Your task to perform on an android device: toggle javascript in the chrome app Image 0: 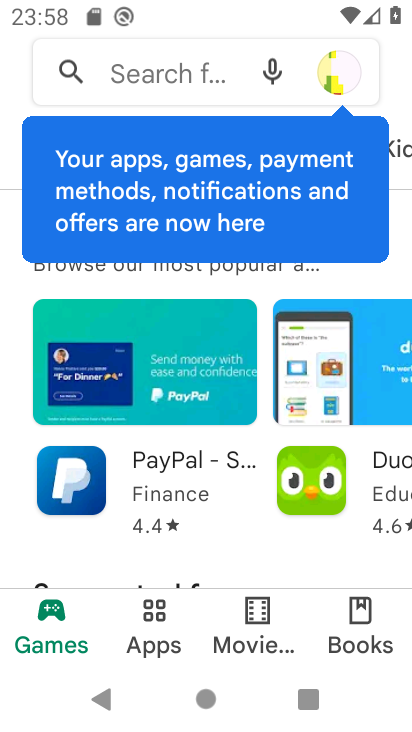
Step 0: press home button
Your task to perform on an android device: toggle javascript in the chrome app Image 1: 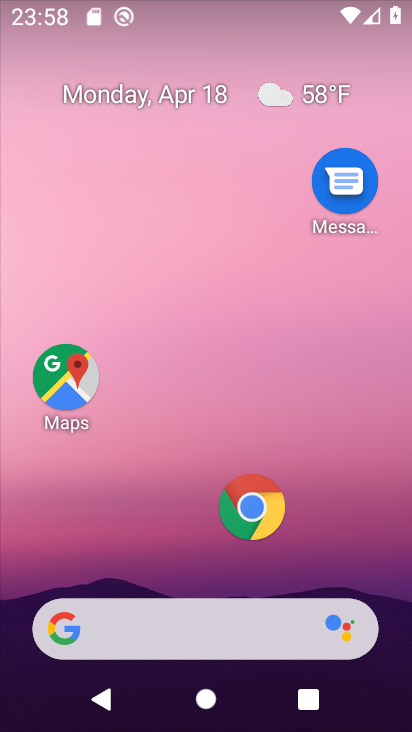
Step 1: click (261, 509)
Your task to perform on an android device: toggle javascript in the chrome app Image 2: 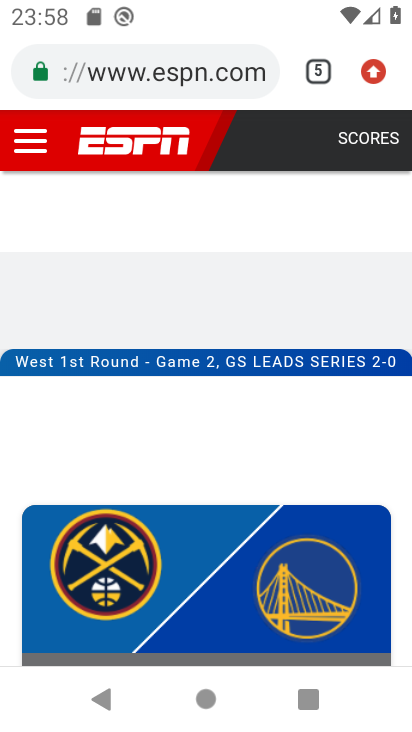
Step 2: click (384, 70)
Your task to perform on an android device: toggle javascript in the chrome app Image 3: 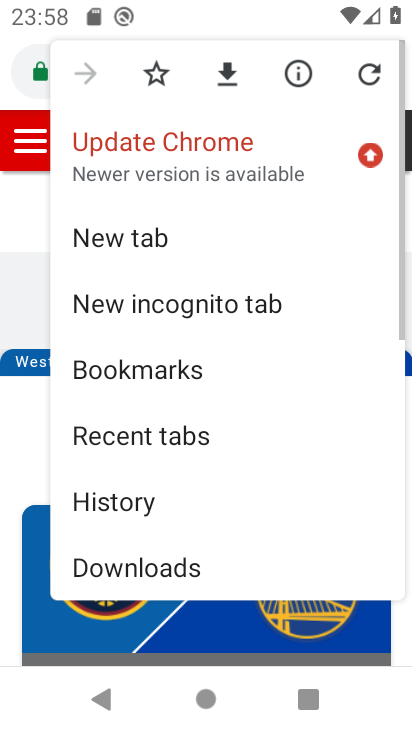
Step 3: drag from (144, 528) to (178, 235)
Your task to perform on an android device: toggle javascript in the chrome app Image 4: 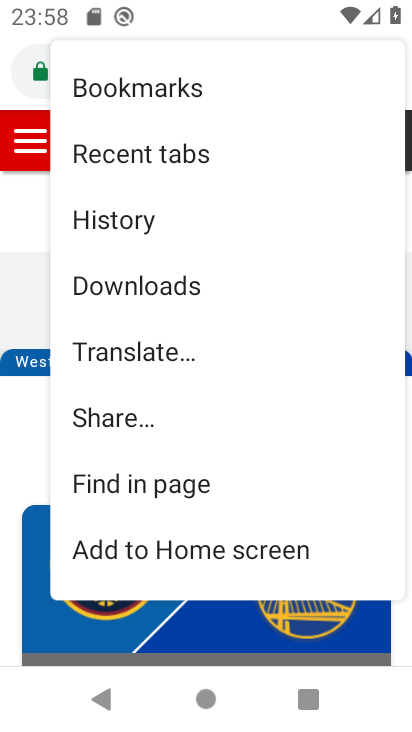
Step 4: drag from (125, 493) to (152, 175)
Your task to perform on an android device: toggle javascript in the chrome app Image 5: 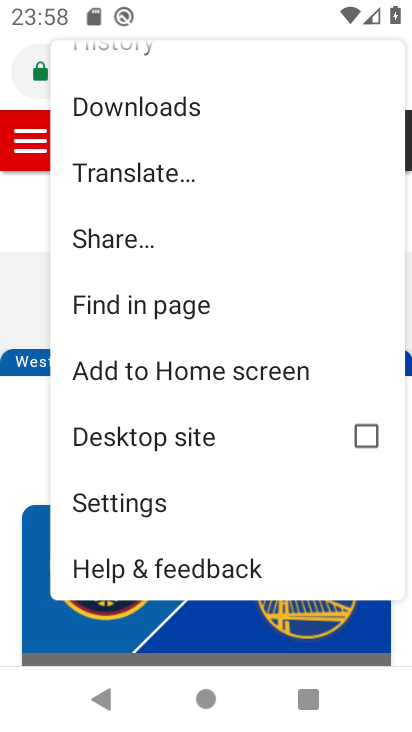
Step 5: click (133, 500)
Your task to perform on an android device: toggle javascript in the chrome app Image 6: 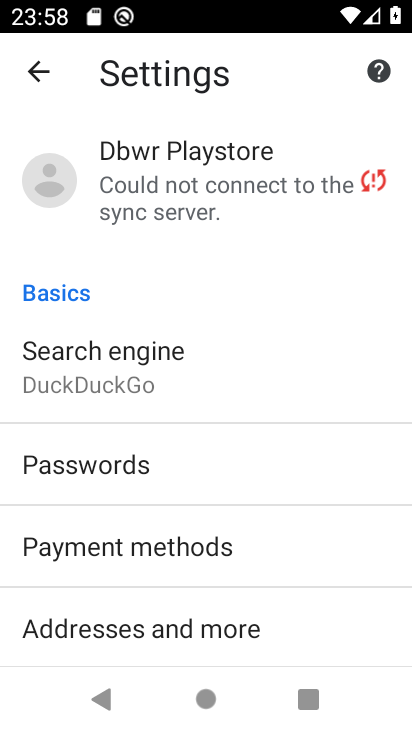
Step 6: drag from (166, 278) to (182, 217)
Your task to perform on an android device: toggle javascript in the chrome app Image 7: 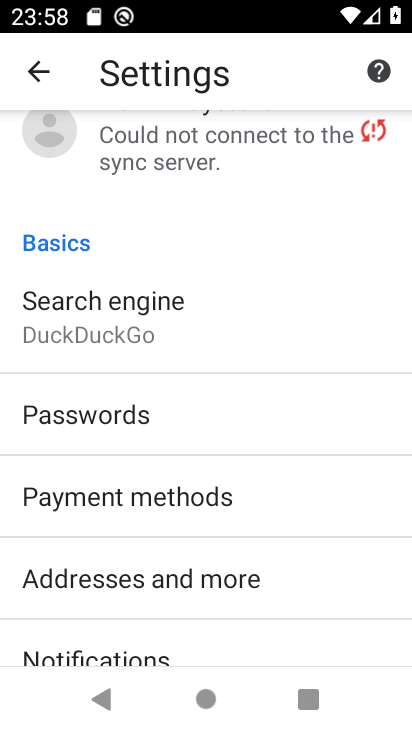
Step 7: drag from (74, 574) to (159, 213)
Your task to perform on an android device: toggle javascript in the chrome app Image 8: 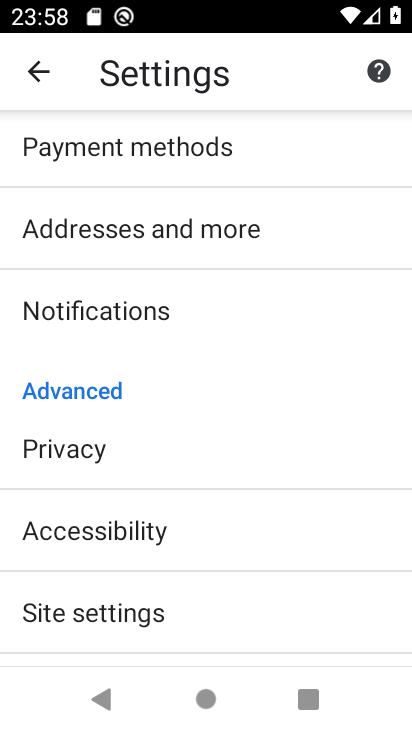
Step 8: drag from (128, 560) to (217, 278)
Your task to perform on an android device: toggle javascript in the chrome app Image 9: 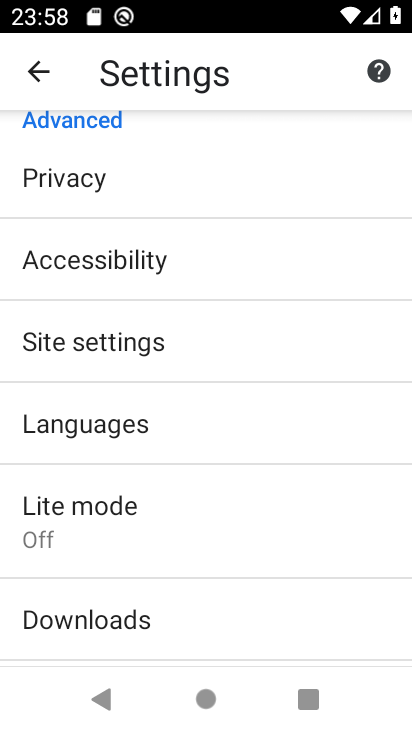
Step 9: click (84, 436)
Your task to perform on an android device: toggle javascript in the chrome app Image 10: 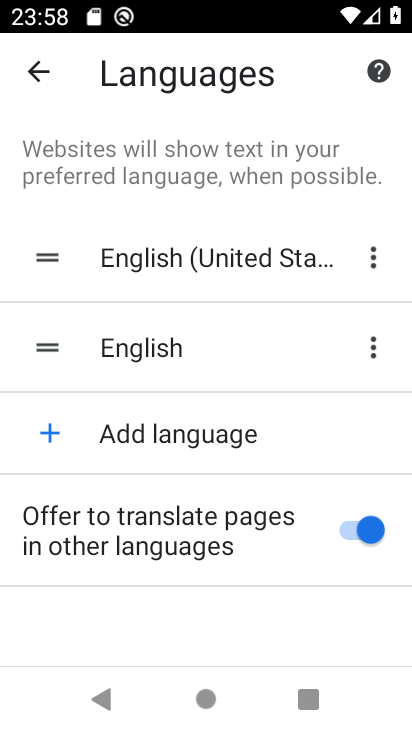
Step 10: click (44, 72)
Your task to perform on an android device: toggle javascript in the chrome app Image 11: 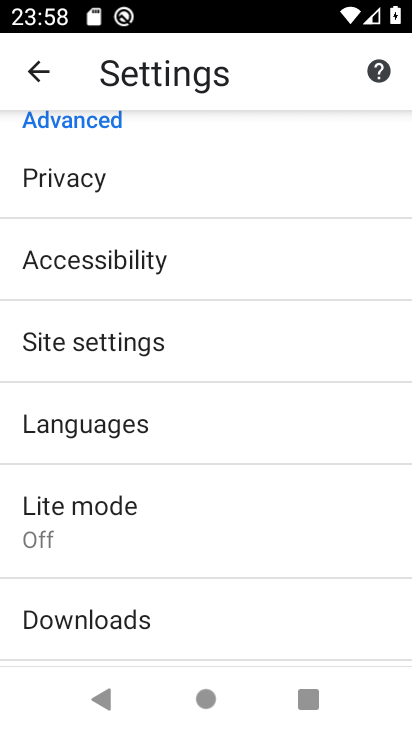
Step 11: click (113, 338)
Your task to perform on an android device: toggle javascript in the chrome app Image 12: 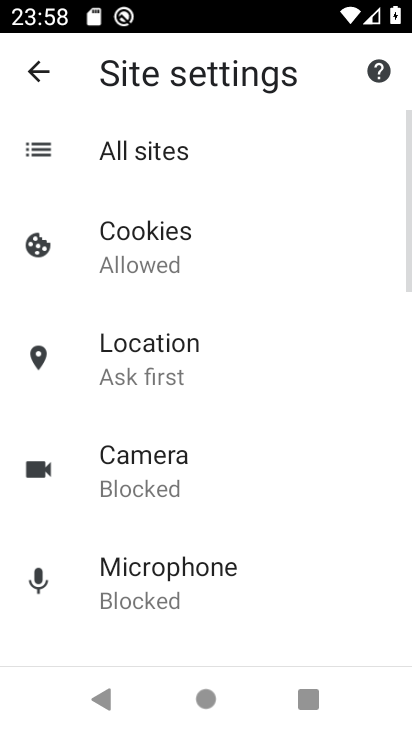
Step 12: drag from (143, 520) to (213, 229)
Your task to perform on an android device: toggle javascript in the chrome app Image 13: 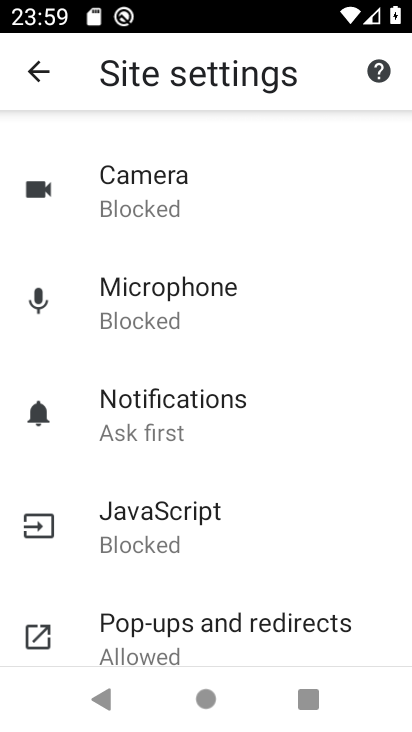
Step 13: click (157, 534)
Your task to perform on an android device: toggle javascript in the chrome app Image 14: 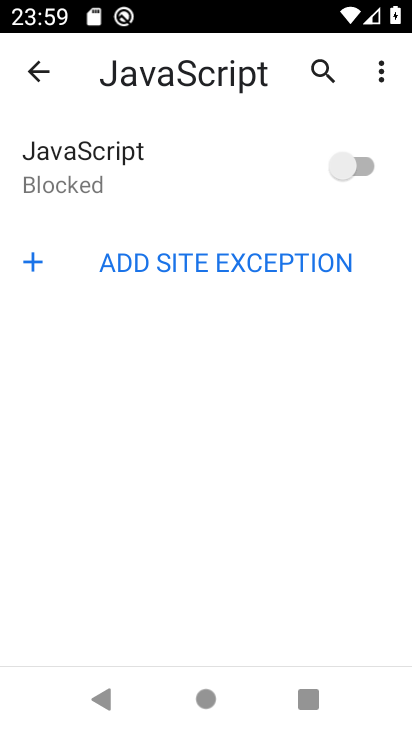
Step 14: click (367, 166)
Your task to perform on an android device: toggle javascript in the chrome app Image 15: 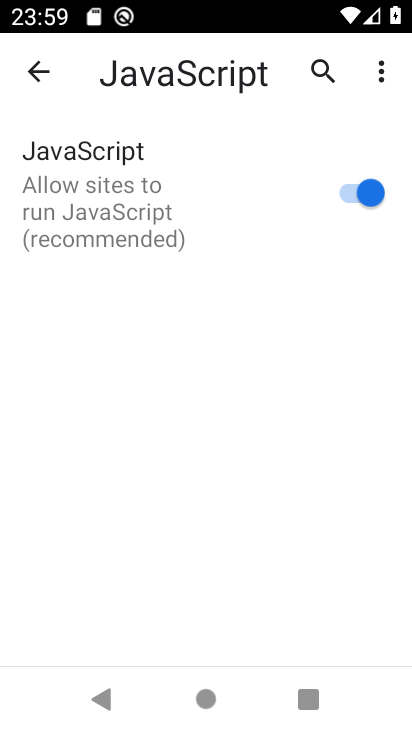
Step 15: task complete